Your task to perform on an android device: change the clock style Image 0: 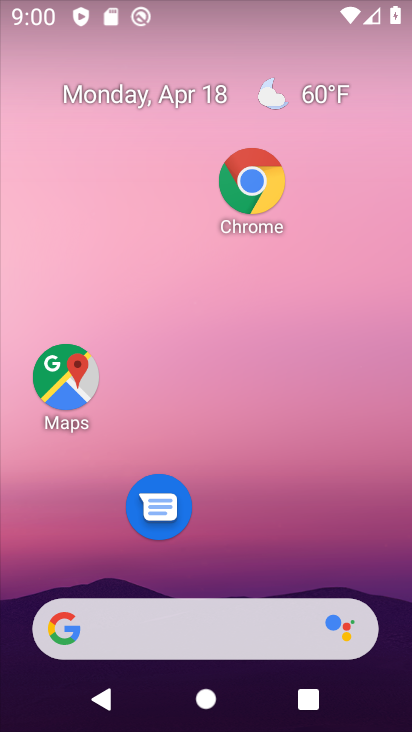
Step 0: drag from (201, 609) to (190, 91)
Your task to perform on an android device: change the clock style Image 1: 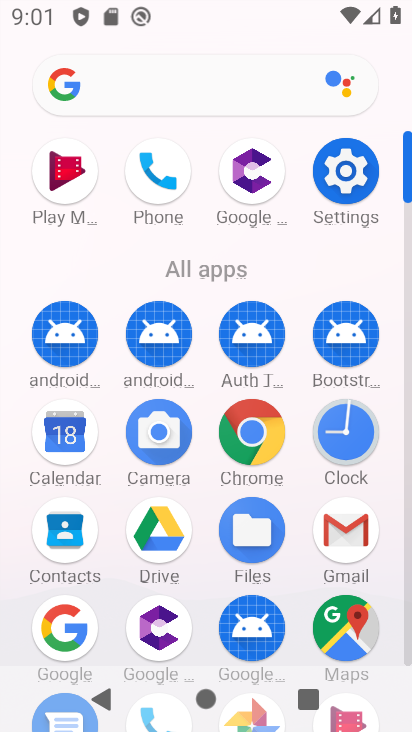
Step 1: click (340, 441)
Your task to perform on an android device: change the clock style Image 2: 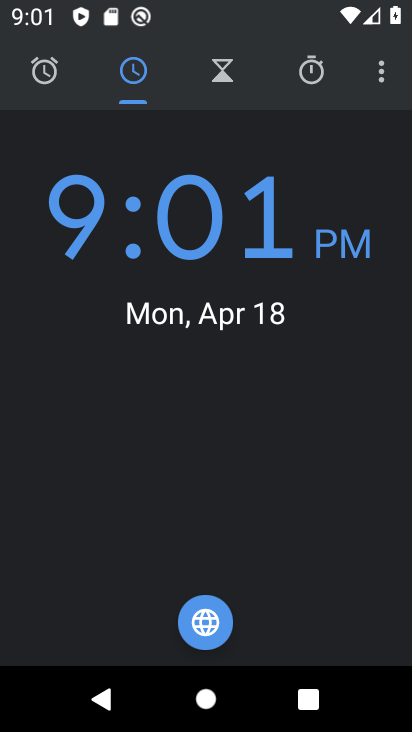
Step 2: click (378, 79)
Your task to perform on an android device: change the clock style Image 3: 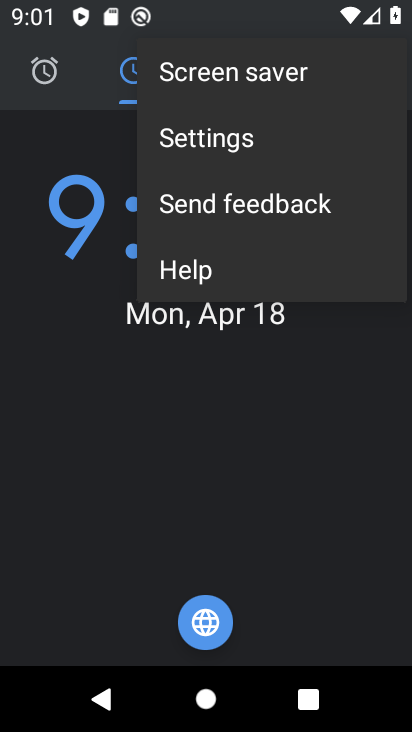
Step 3: click (231, 132)
Your task to perform on an android device: change the clock style Image 4: 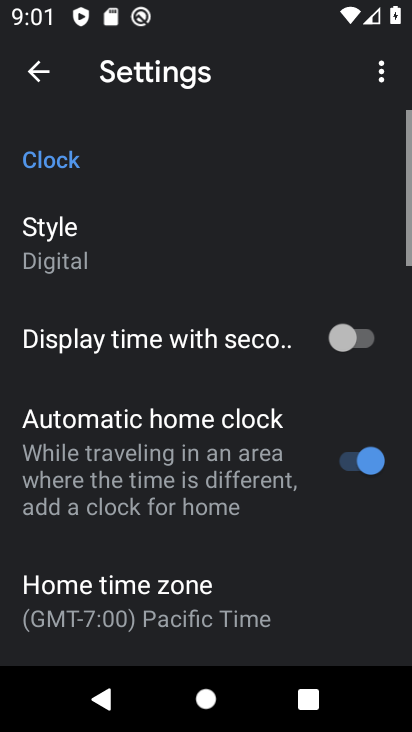
Step 4: click (99, 229)
Your task to perform on an android device: change the clock style Image 5: 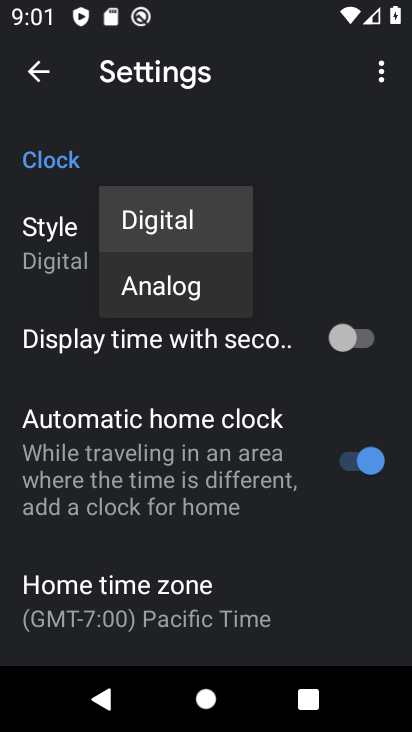
Step 5: click (133, 277)
Your task to perform on an android device: change the clock style Image 6: 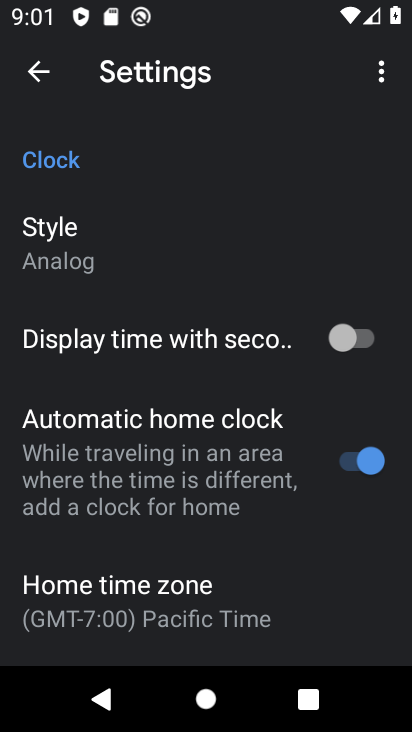
Step 6: task complete